Your task to perform on an android device: Open Android settings Image 0: 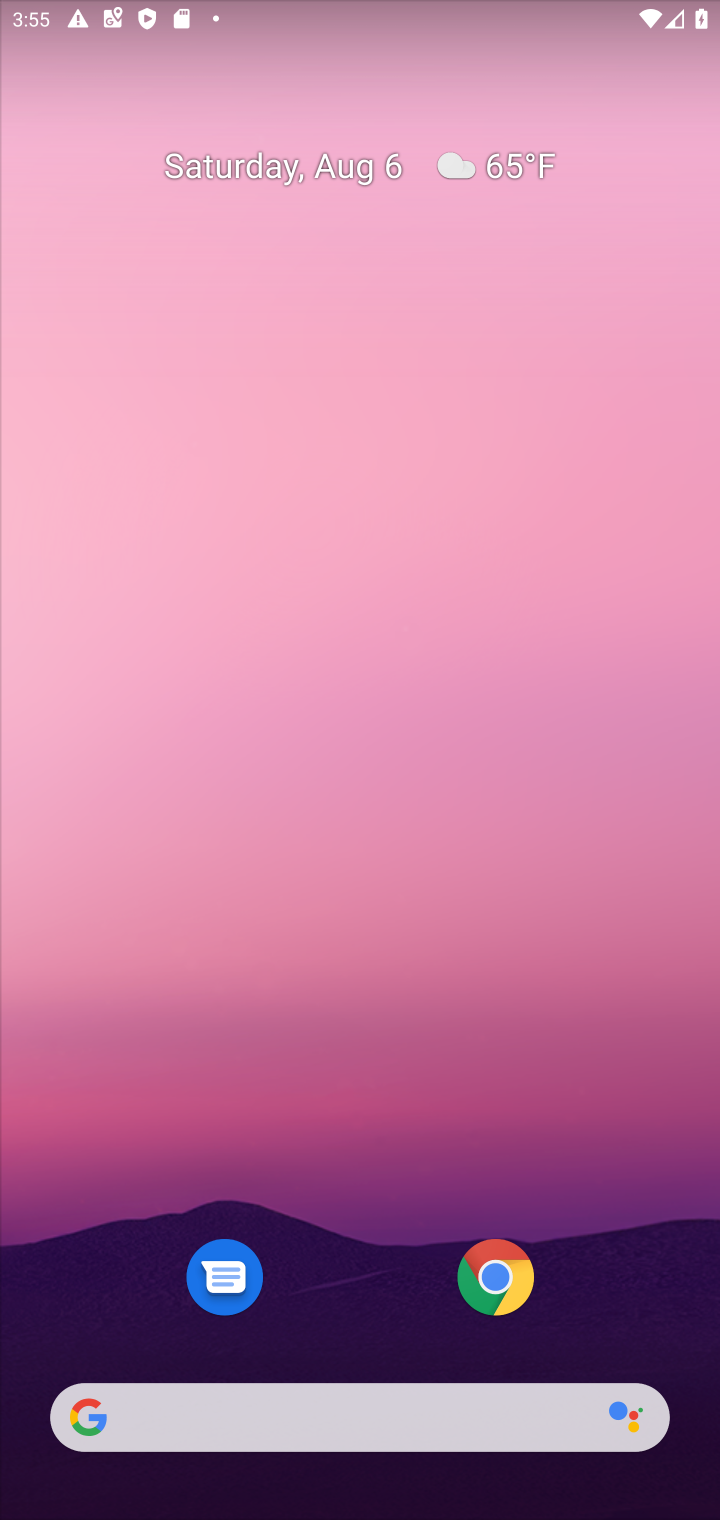
Step 0: drag from (403, 1408) to (570, 40)
Your task to perform on an android device: Open Android settings Image 1: 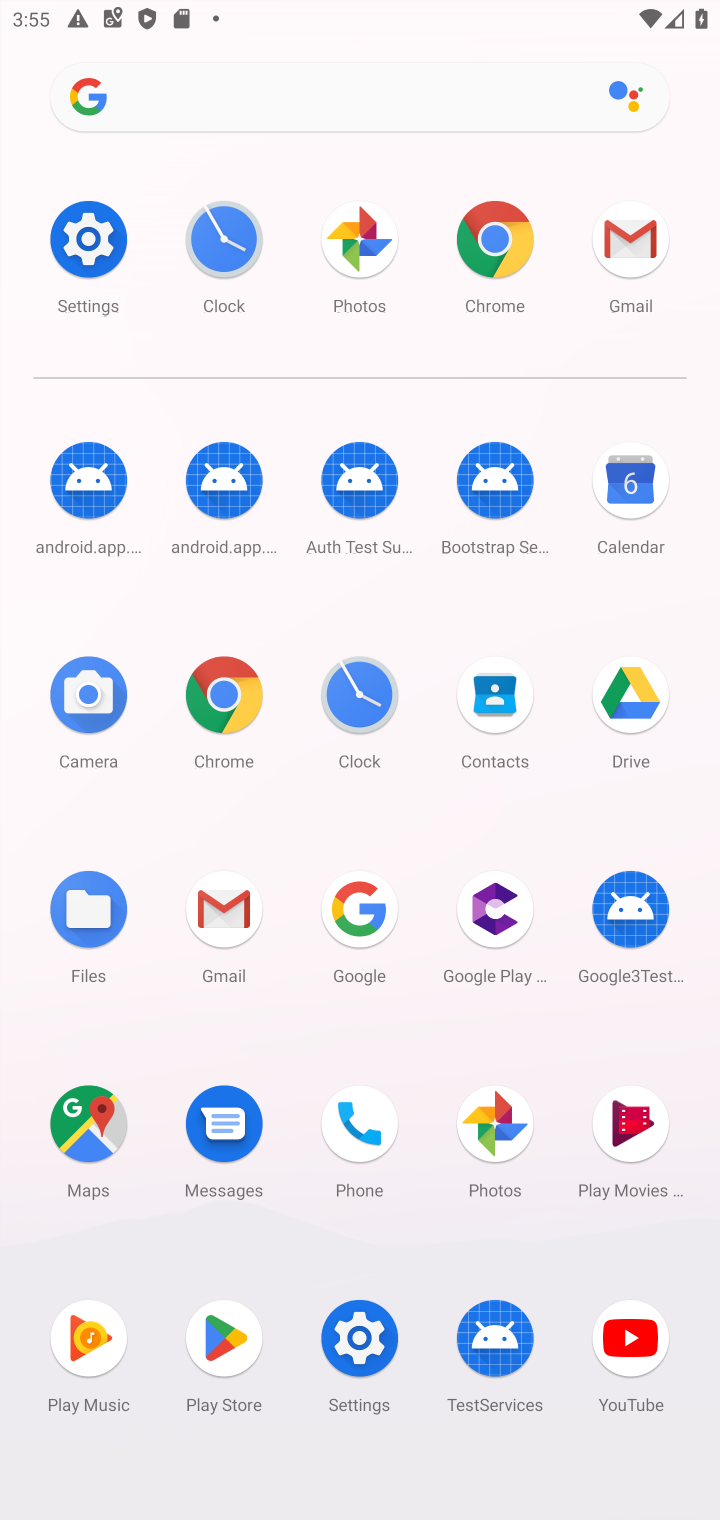
Step 1: click (87, 226)
Your task to perform on an android device: Open Android settings Image 2: 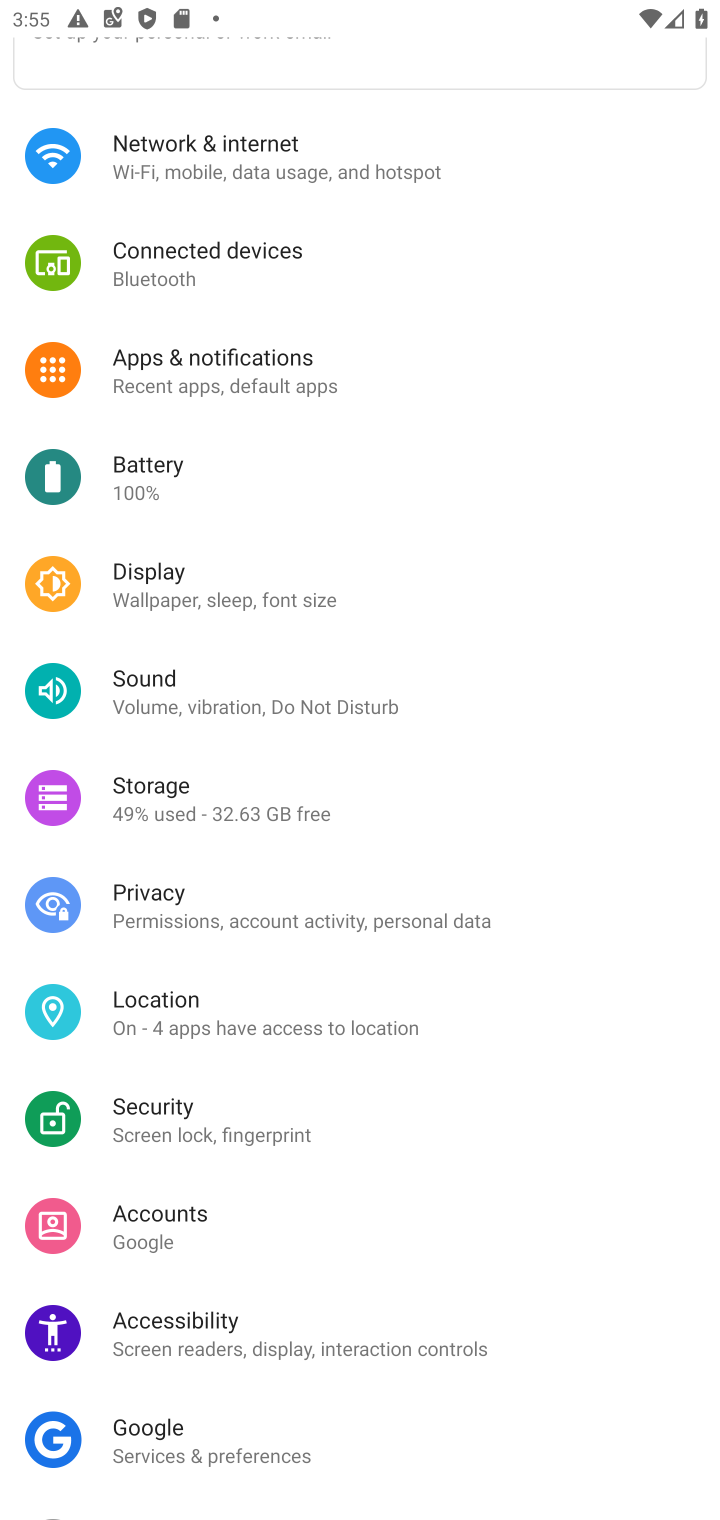
Step 2: drag from (400, 1450) to (383, 717)
Your task to perform on an android device: Open Android settings Image 3: 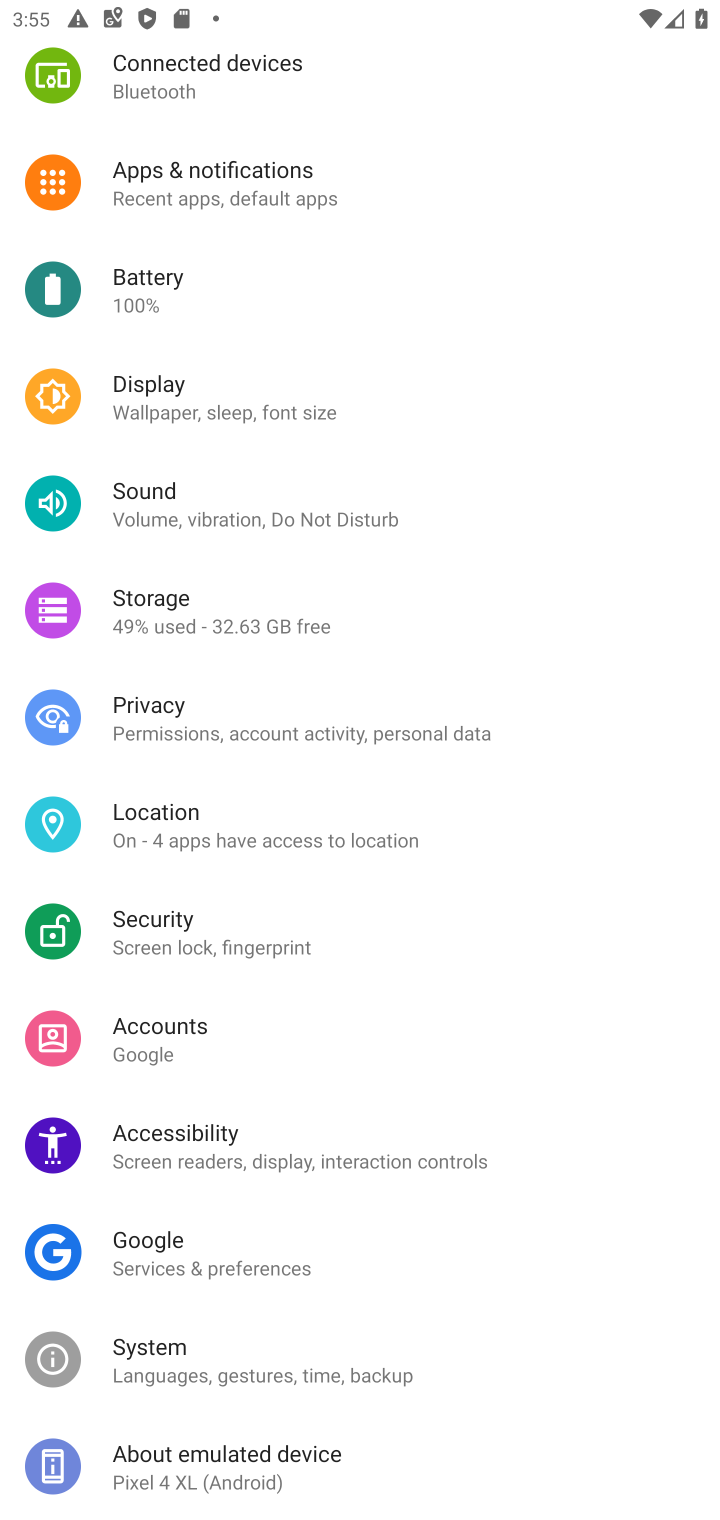
Step 3: click (341, 1451)
Your task to perform on an android device: Open Android settings Image 4: 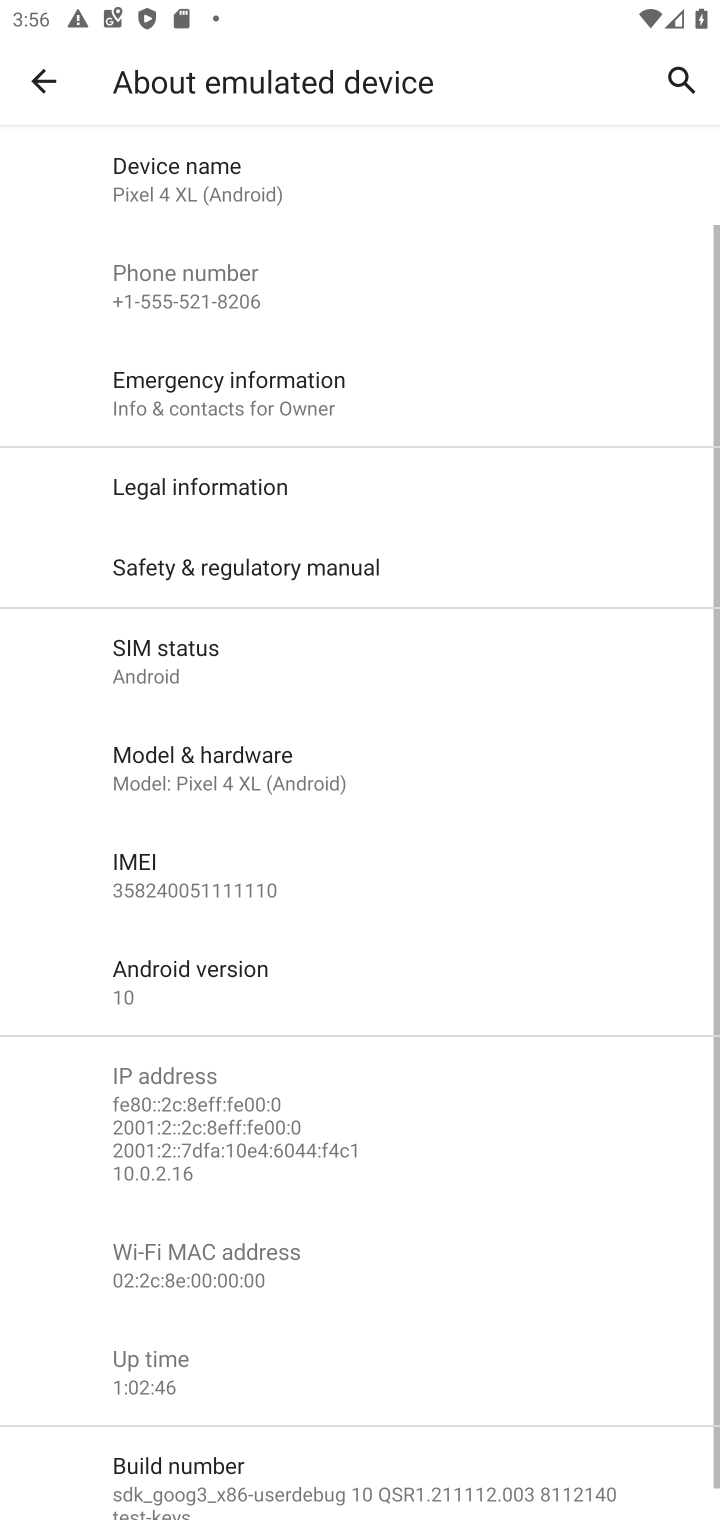
Step 4: task complete